Your task to perform on an android device: Show me popular games on the Play Store Image 0: 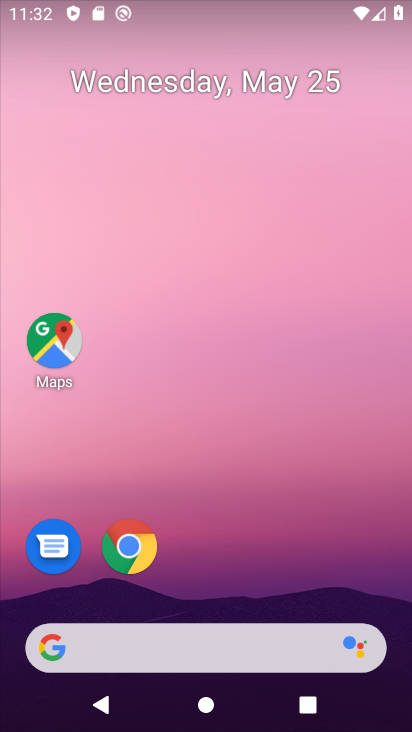
Step 0: drag from (257, 589) to (252, 15)
Your task to perform on an android device: Show me popular games on the Play Store Image 1: 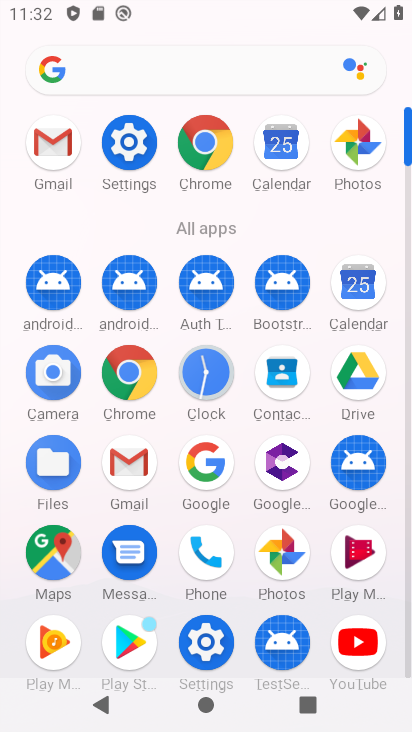
Step 1: click (134, 654)
Your task to perform on an android device: Show me popular games on the Play Store Image 2: 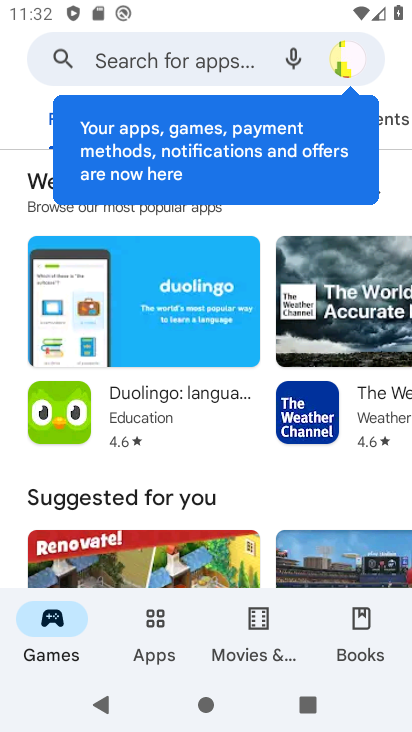
Step 2: click (38, 635)
Your task to perform on an android device: Show me popular games on the Play Store Image 3: 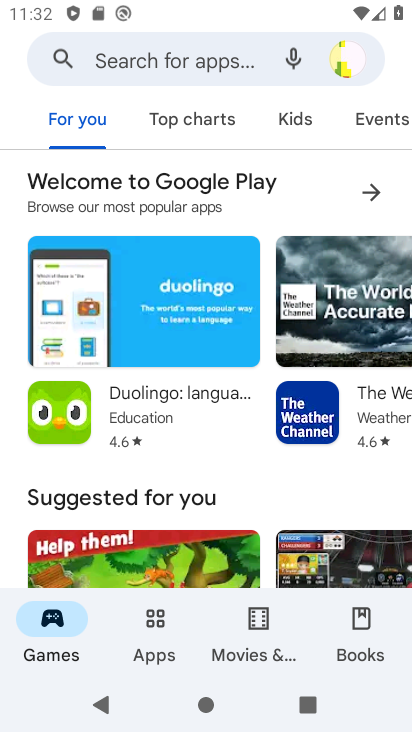
Step 3: click (182, 121)
Your task to perform on an android device: Show me popular games on the Play Store Image 4: 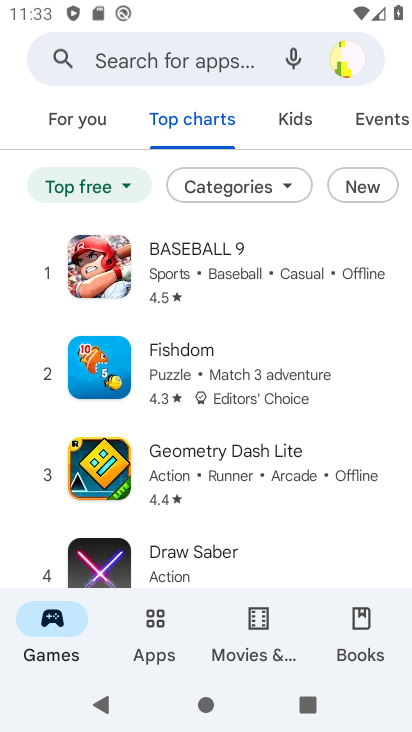
Step 4: task complete